Your task to perform on an android device: turn off translation in the chrome app Image 0: 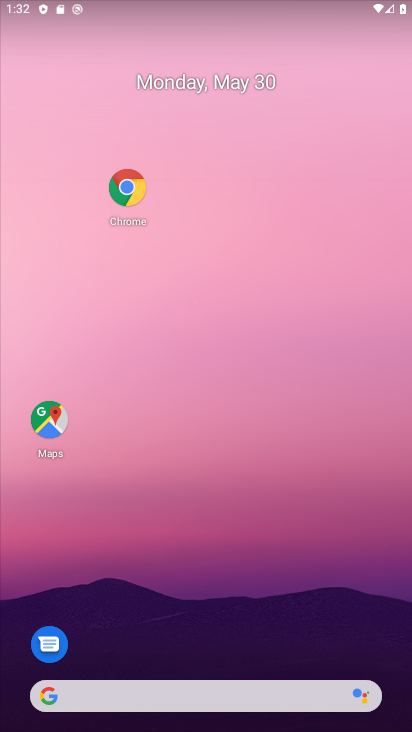
Step 0: click (126, 186)
Your task to perform on an android device: turn off translation in the chrome app Image 1: 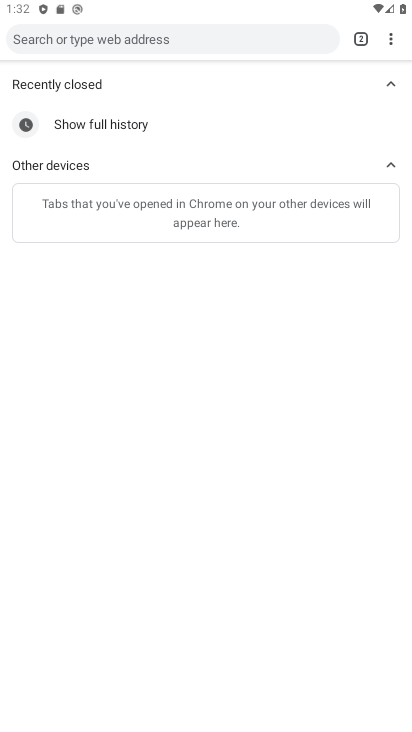
Step 1: click (402, 34)
Your task to perform on an android device: turn off translation in the chrome app Image 2: 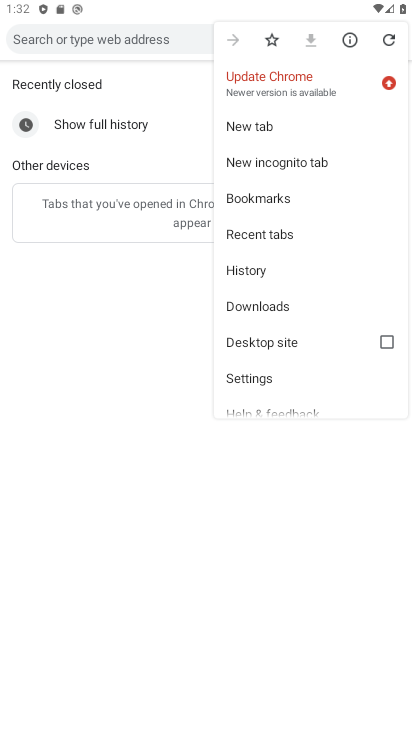
Step 2: click (230, 371)
Your task to perform on an android device: turn off translation in the chrome app Image 3: 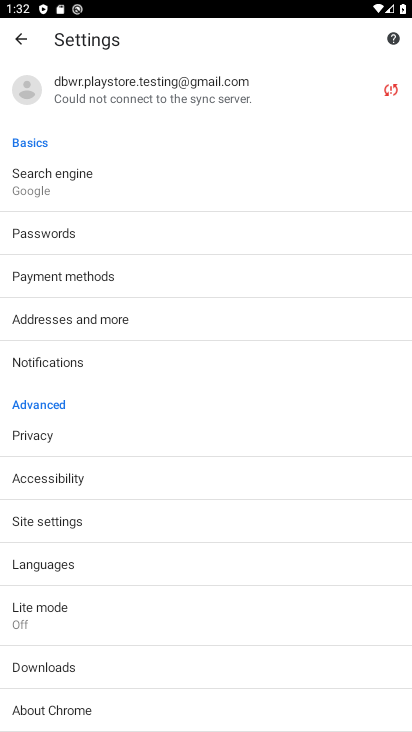
Step 3: click (133, 575)
Your task to perform on an android device: turn off translation in the chrome app Image 4: 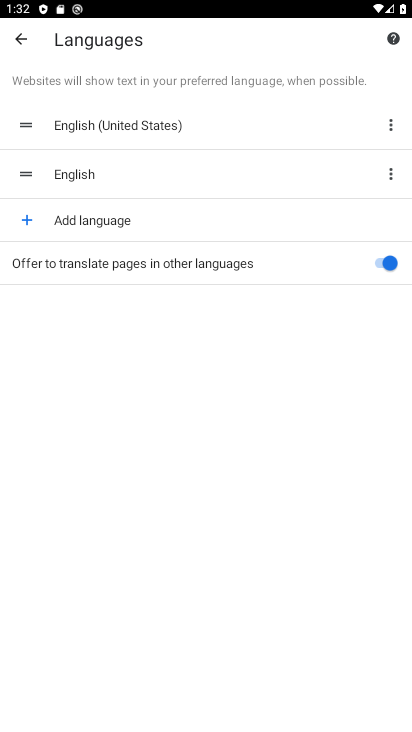
Step 4: click (381, 270)
Your task to perform on an android device: turn off translation in the chrome app Image 5: 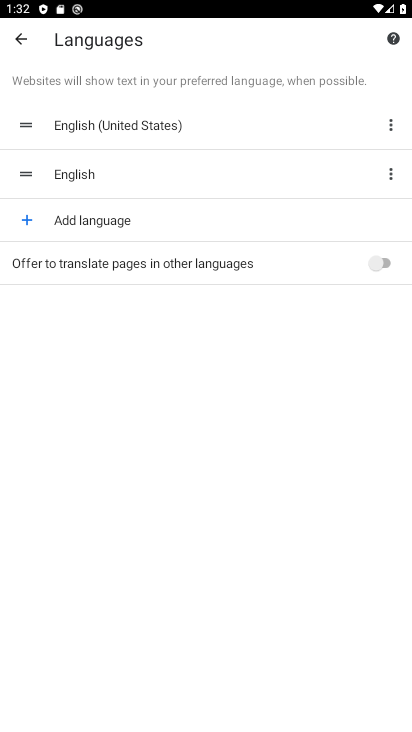
Step 5: task complete